Your task to perform on an android device: Open Wikipedia Image 0: 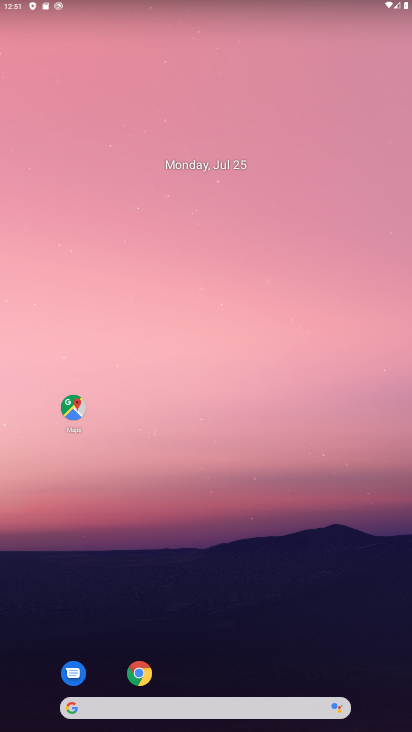
Step 0: click (140, 673)
Your task to perform on an android device: Open Wikipedia Image 1: 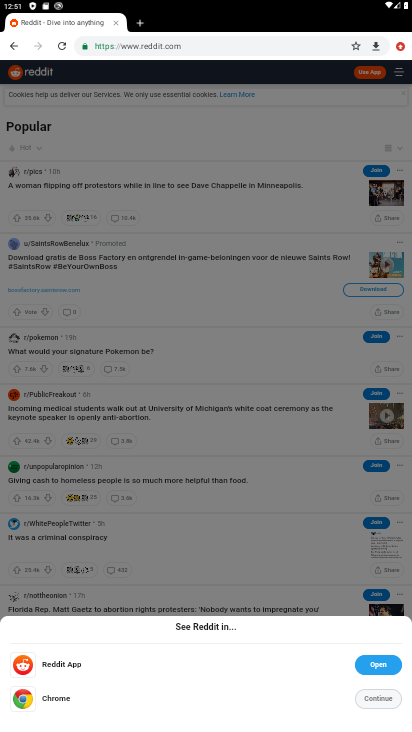
Step 1: click (215, 48)
Your task to perform on an android device: Open Wikipedia Image 2: 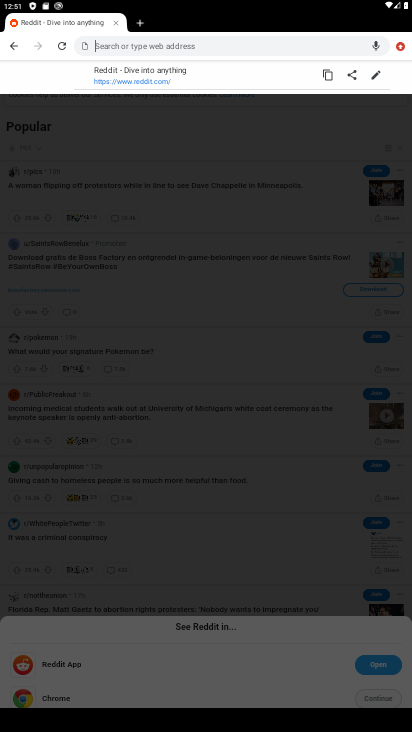
Step 2: type "wikipedia"
Your task to perform on an android device: Open Wikipedia Image 3: 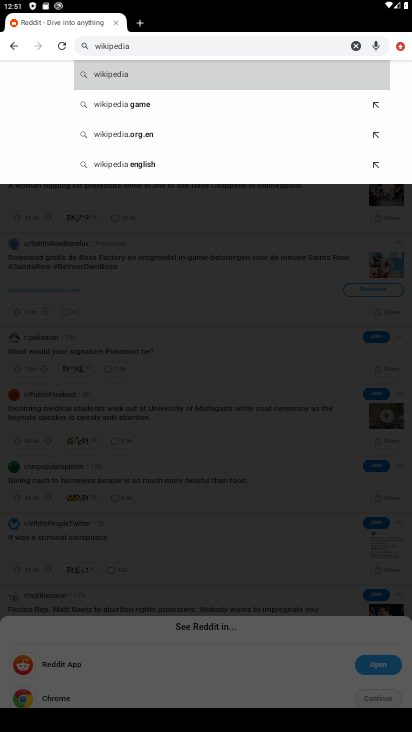
Step 3: click (116, 67)
Your task to perform on an android device: Open Wikipedia Image 4: 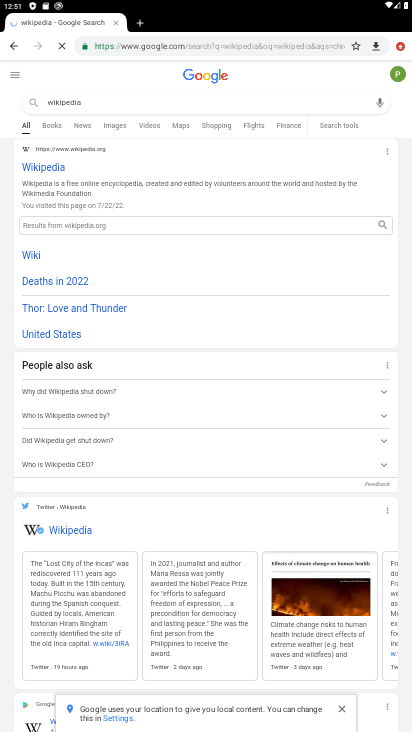
Step 4: click (36, 173)
Your task to perform on an android device: Open Wikipedia Image 5: 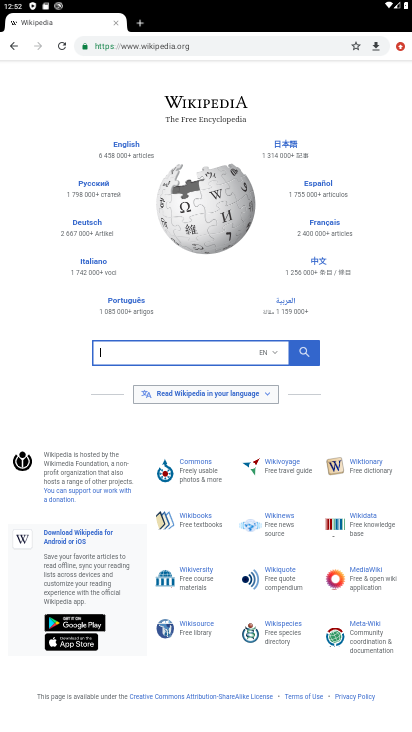
Step 5: task complete